Your task to perform on an android device: stop showing notifications on the lock screen Image 0: 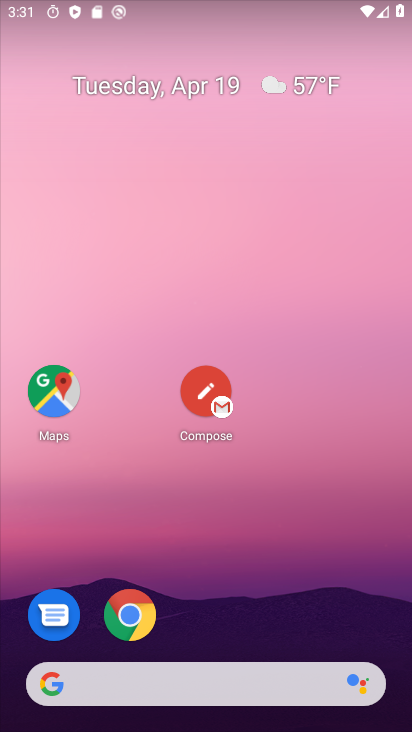
Step 0: drag from (325, 592) to (331, 93)
Your task to perform on an android device: stop showing notifications on the lock screen Image 1: 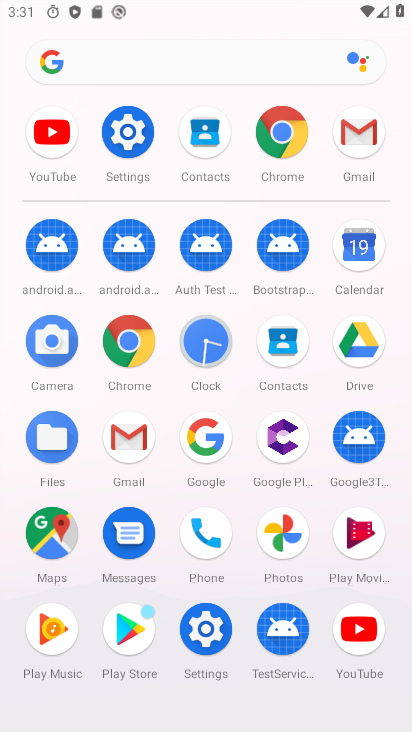
Step 1: click (195, 645)
Your task to perform on an android device: stop showing notifications on the lock screen Image 2: 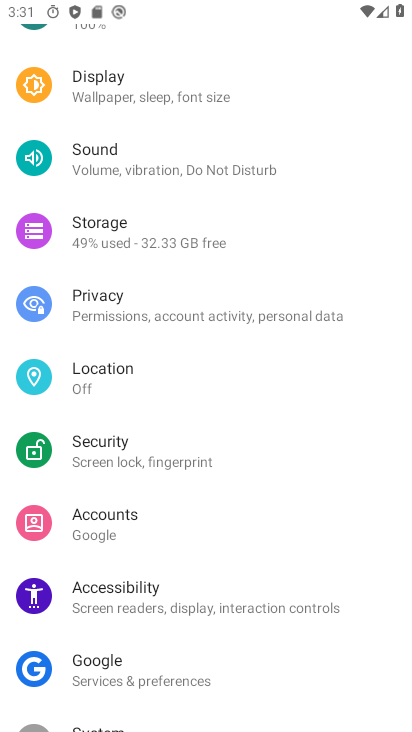
Step 2: drag from (251, 271) to (273, 727)
Your task to perform on an android device: stop showing notifications on the lock screen Image 3: 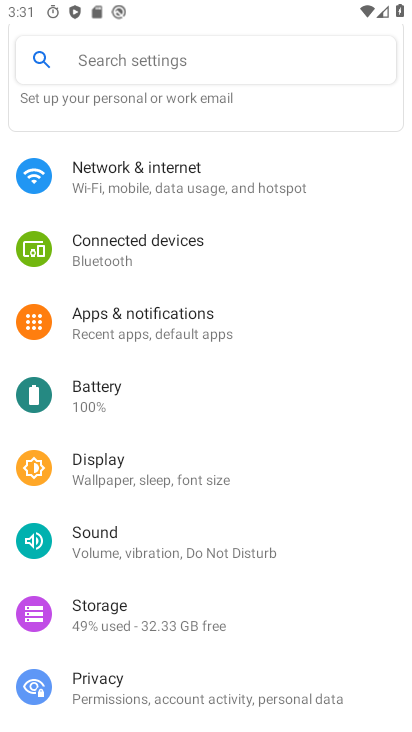
Step 3: drag from (216, 672) to (293, 151)
Your task to perform on an android device: stop showing notifications on the lock screen Image 4: 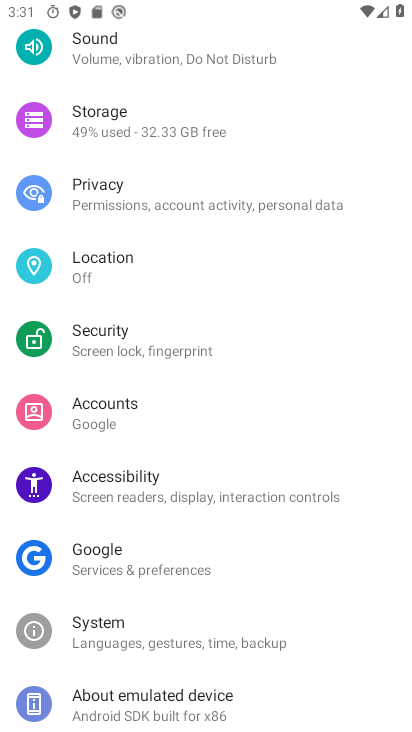
Step 4: drag from (238, 285) to (225, 688)
Your task to perform on an android device: stop showing notifications on the lock screen Image 5: 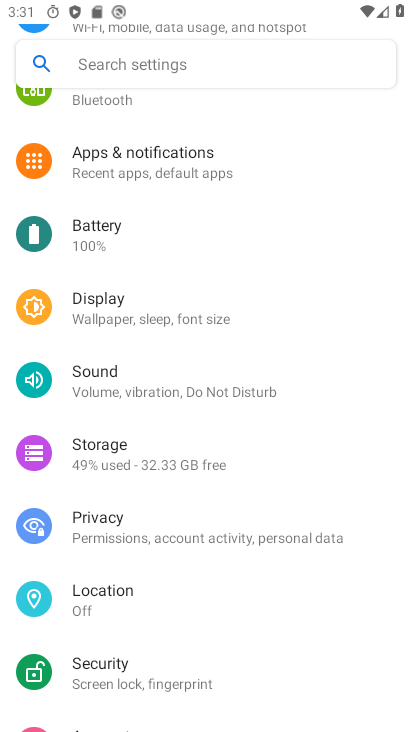
Step 5: click (224, 170)
Your task to perform on an android device: stop showing notifications on the lock screen Image 6: 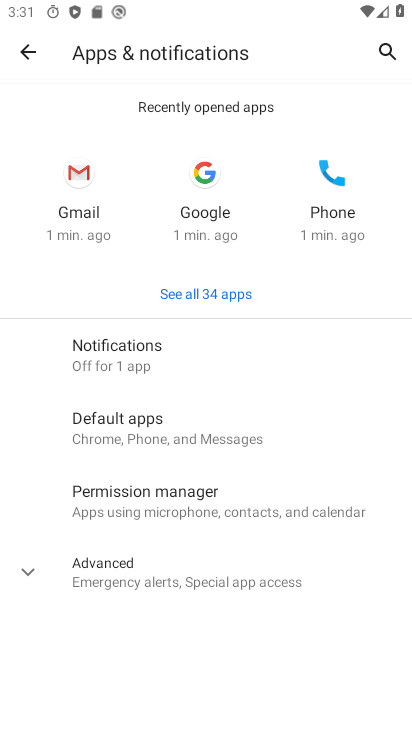
Step 6: click (174, 362)
Your task to perform on an android device: stop showing notifications on the lock screen Image 7: 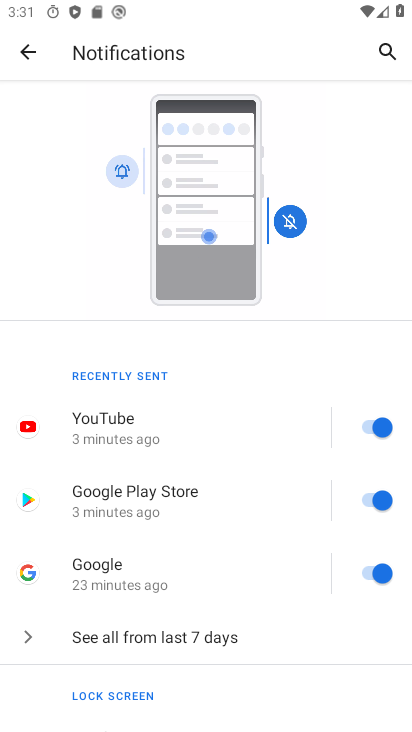
Step 7: drag from (236, 636) to (252, 101)
Your task to perform on an android device: stop showing notifications on the lock screen Image 8: 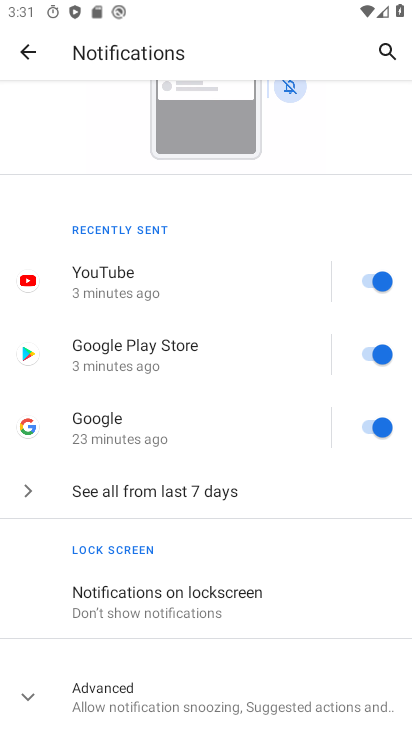
Step 8: click (199, 605)
Your task to perform on an android device: stop showing notifications on the lock screen Image 9: 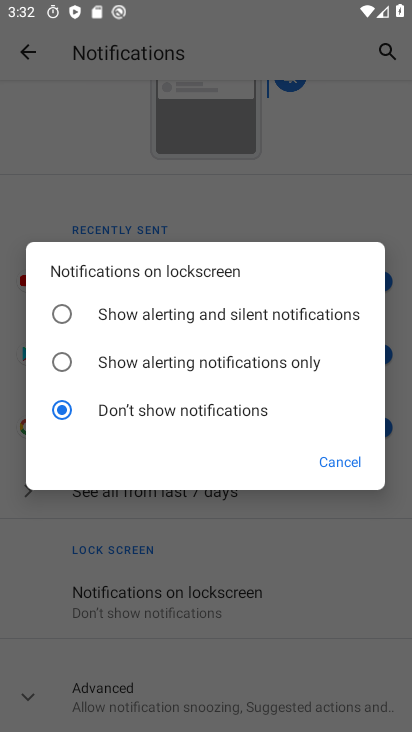
Step 9: task complete